Your task to perform on an android device: Find coffee shops on Maps Image 0: 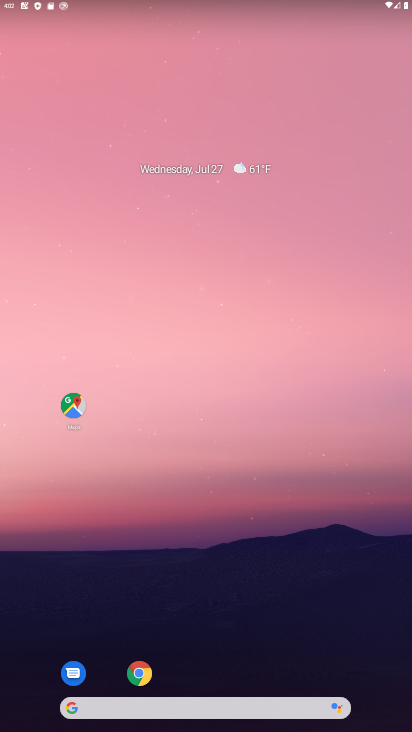
Step 0: click (68, 398)
Your task to perform on an android device: Find coffee shops on Maps Image 1: 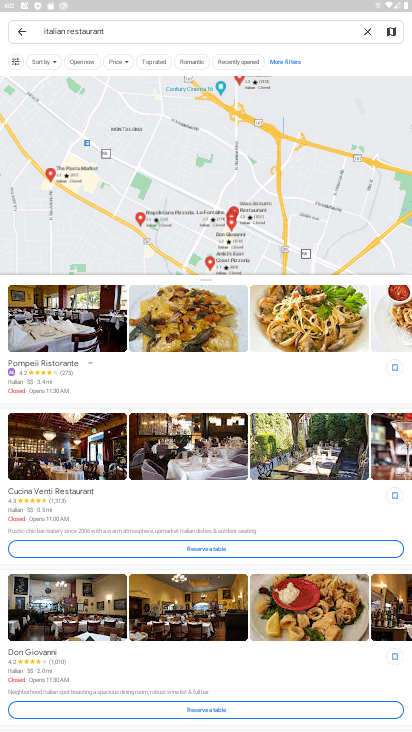
Step 1: click (364, 31)
Your task to perform on an android device: Find coffee shops on Maps Image 2: 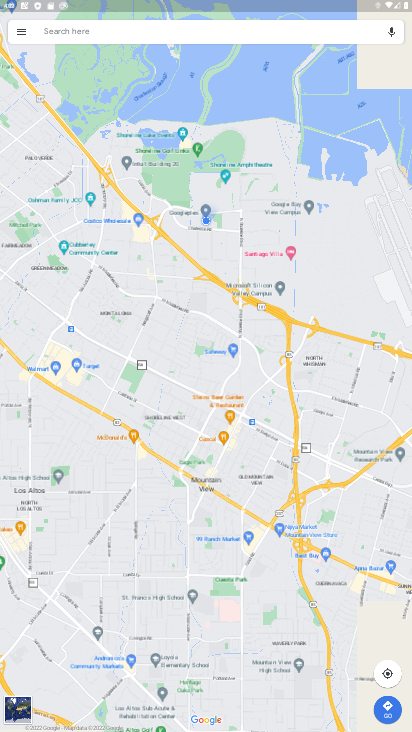
Step 2: click (318, 33)
Your task to perform on an android device: Find coffee shops on Maps Image 3: 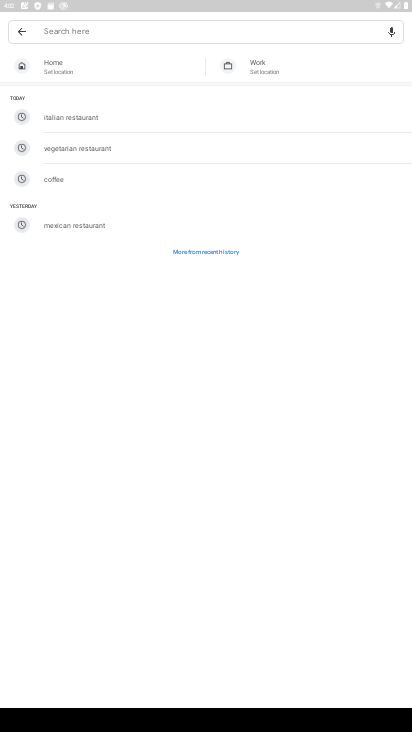
Step 3: click (260, 179)
Your task to perform on an android device: Find coffee shops on Maps Image 4: 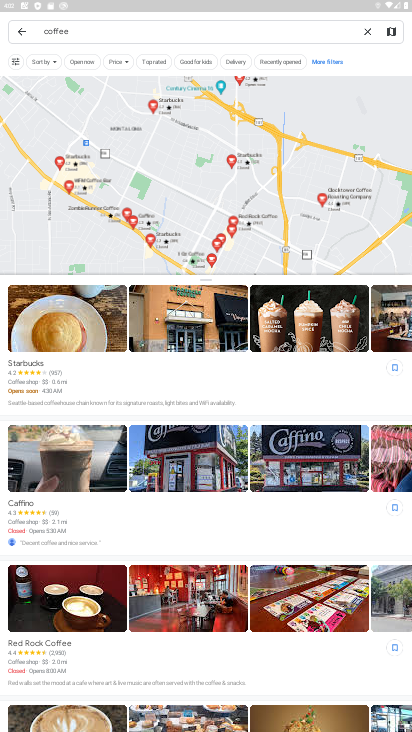
Step 4: task complete